Your task to perform on an android device: Open Google Chrome and click the shortcut for Amazon.com Image 0: 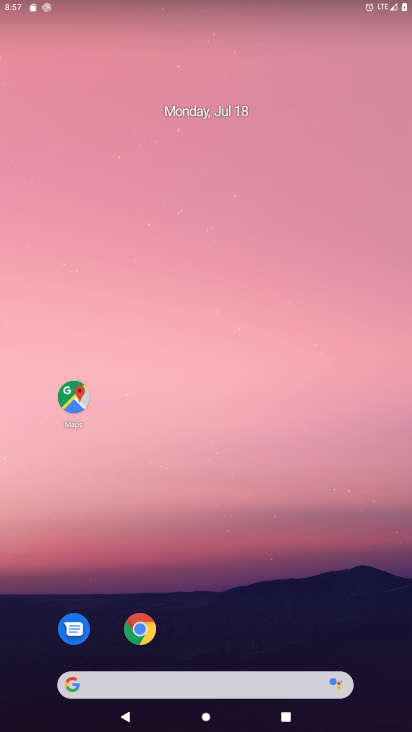
Step 0: click (138, 636)
Your task to perform on an android device: Open Google Chrome and click the shortcut for Amazon.com Image 1: 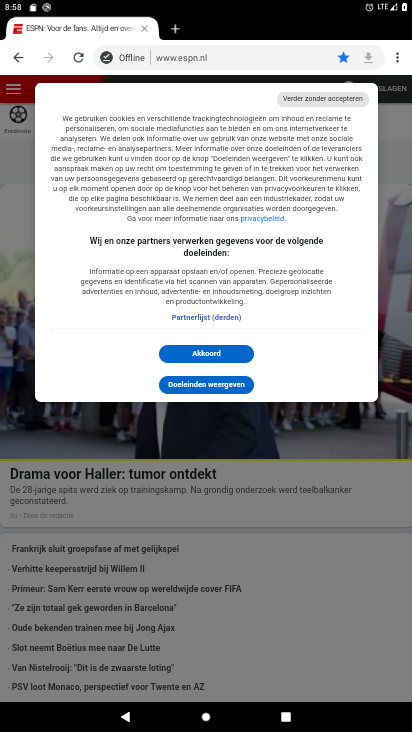
Step 1: click (395, 50)
Your task to perform on an android device: Open Google Chrome and click the shortcut for Amazon.com Image 2: 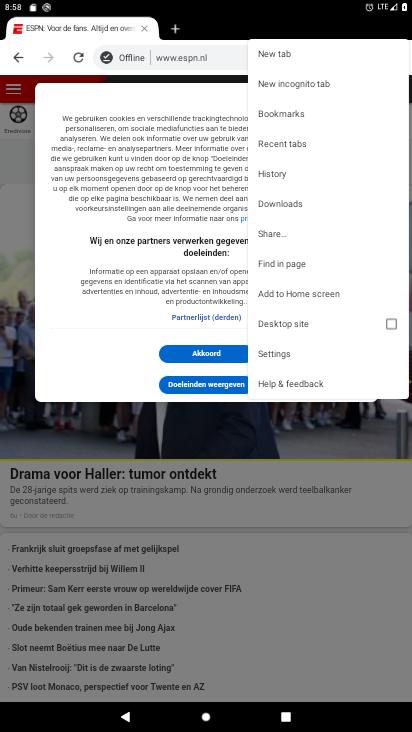
Step 2: click (173, 28)
Your task to perform on an android device: Open Google Chrome and click the shortcut for Amazon.com Image 3: 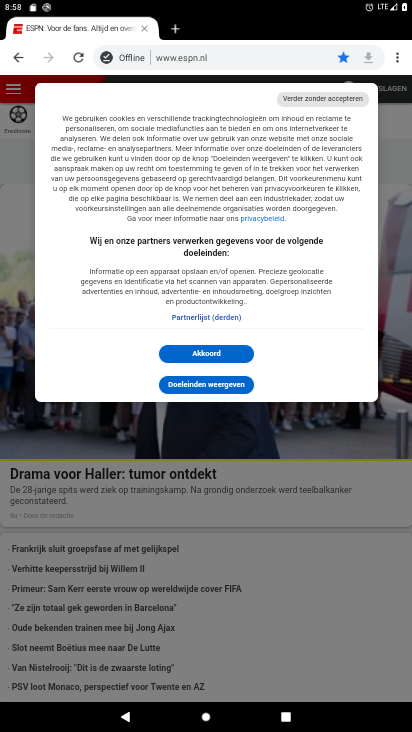
Step 3: click (177, 30)
Your task to perform on an android device: Open Google Chrome and click the shortcut for Amazon.com Image 4: 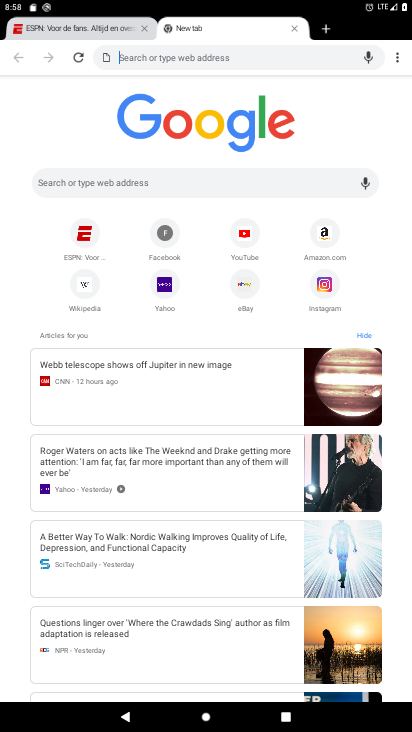
Step 4: click (317, 238)
Your task to perform on an android device: Open Google Chrome and click the shortcut for Amazon.com Image 5: 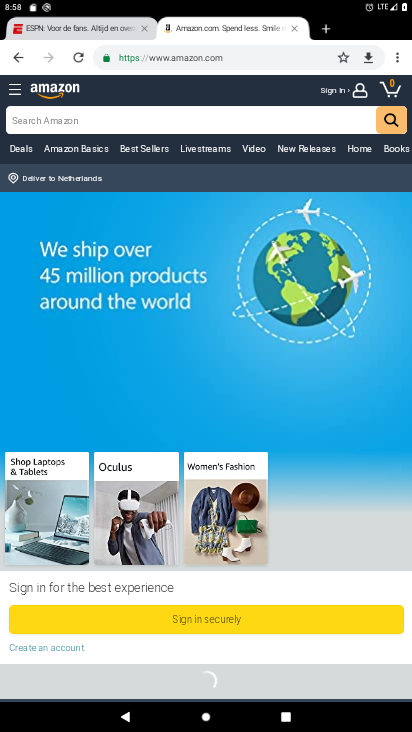
Step 5: task complete